Your task to perform on an android device: change the clock style Image 0: 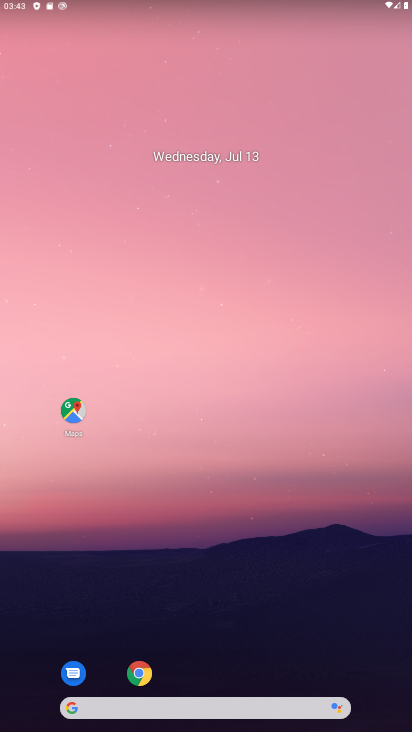
Step 0: drag from (284, 595) to (279, 32)
Your task to perform on an android device: change the clock style Image 1: 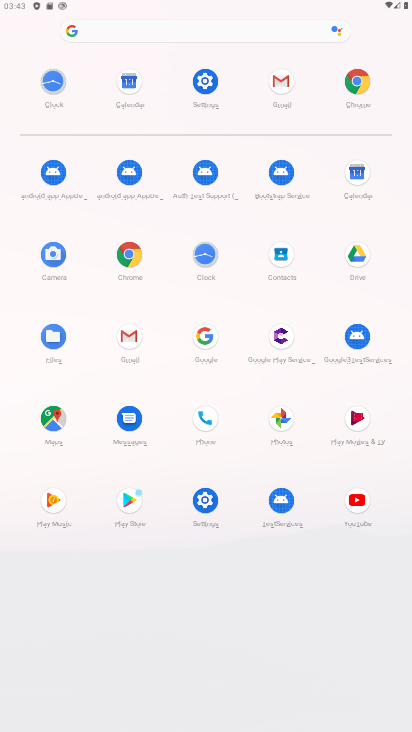
Step 1: click (195, 247)
Your task to perform on an android device: change the clock style Image 2: 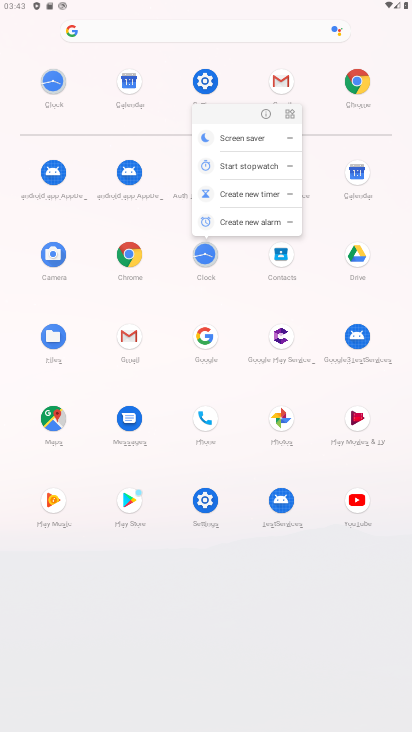
Step 2: click (209, 253)
Your task to perform on an android device: change the clock style Image 3: 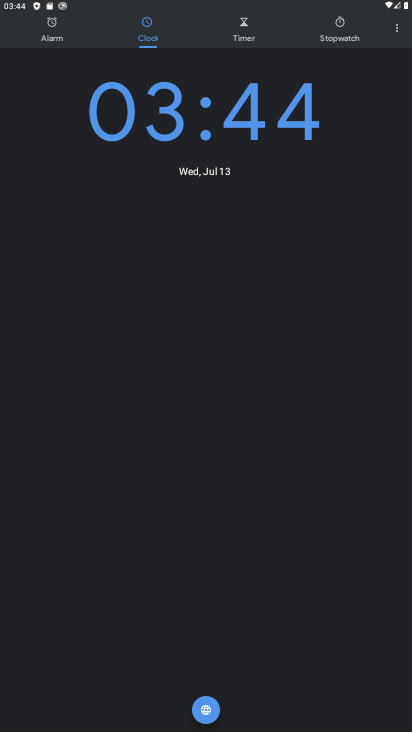
Step 3: click (397, 33)
Your task to perform on an android device: change the clock style Image 4: 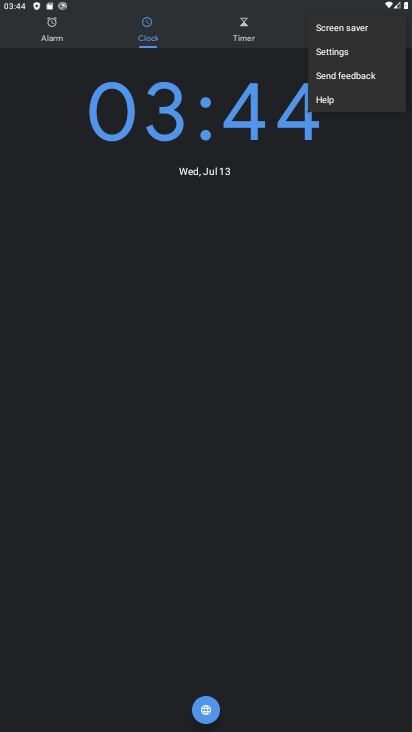
Step 4: click (332, 51)
Your task to perform on an android device: change the clock style Image 5: 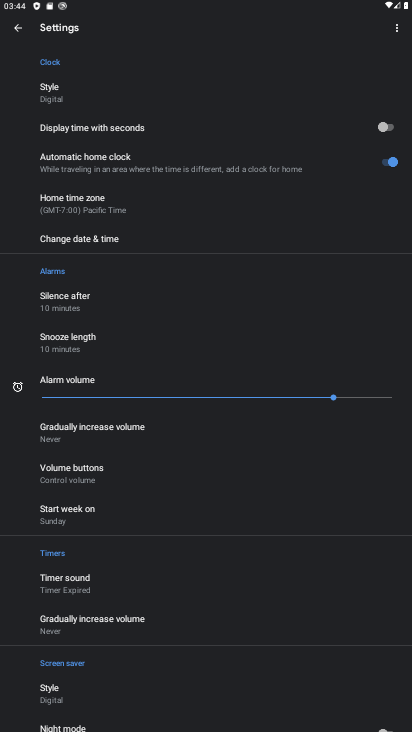
Step 5: click (56, 94)
Your task to perform on an android device: change the clock style Image 6: 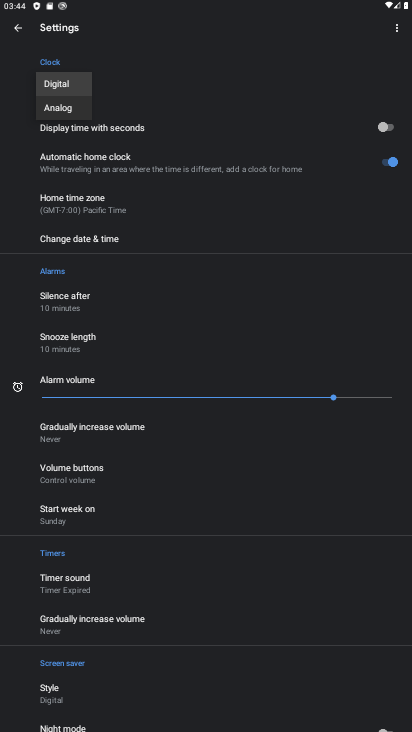
Step 6: click (59, 102)
Your task to perform on an android device: change the clock style Image 7: 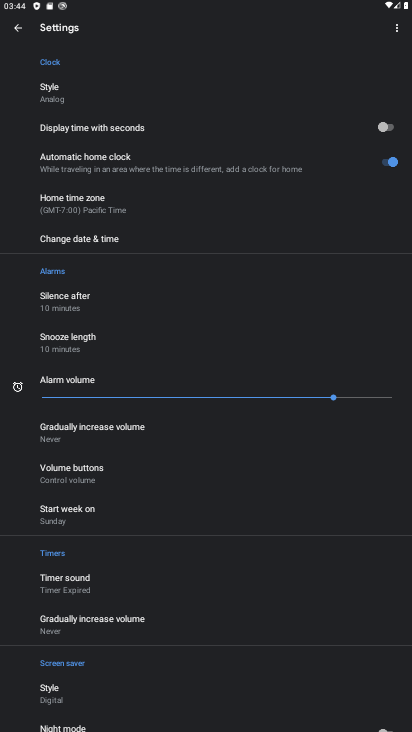
Step 7: task complete